Your task to perform on an android device: change the clock style Image 0: 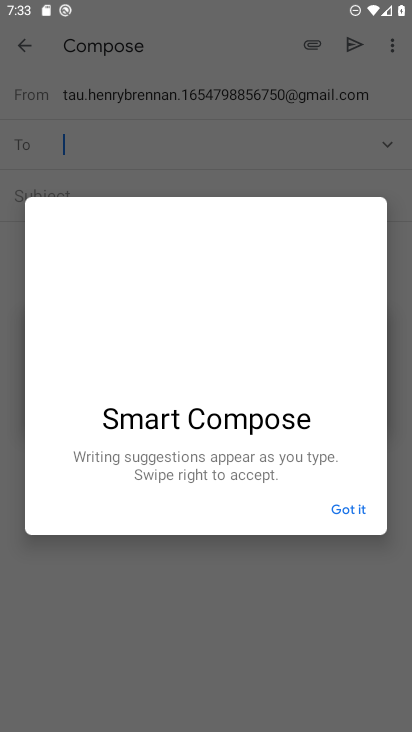
Step 0: press home button
Your task to perform on an android device: change the clock style Image 1: 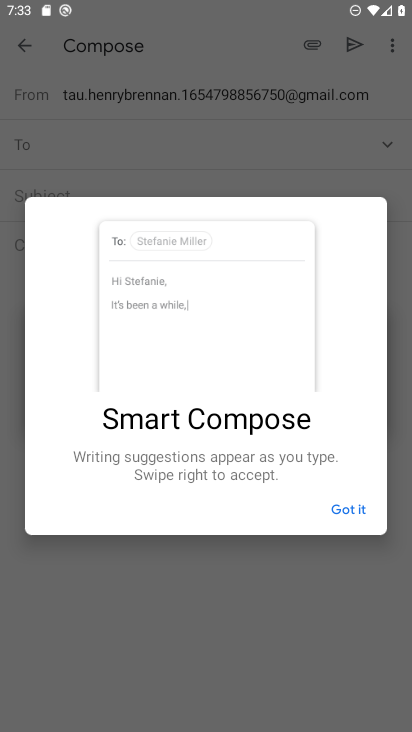
Step 1: drag from (369, 654) to (208, 25)
Your task to perform on an android device: change the clock style Image 2: 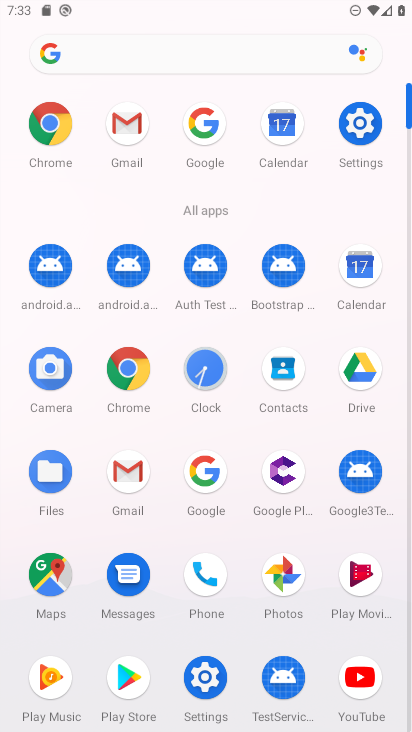
Step 2: click (199, 383)
Your task to perform on an android device: change the clock style Image 3: 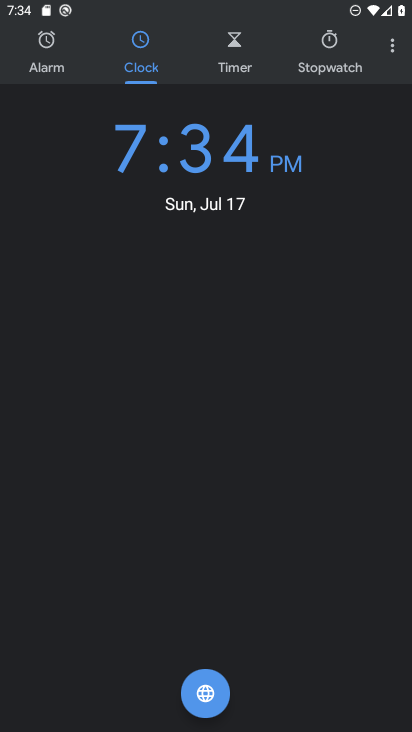
Step 3: click (389, 48)
Your task to perform on an android device: change the clock style Image 4: 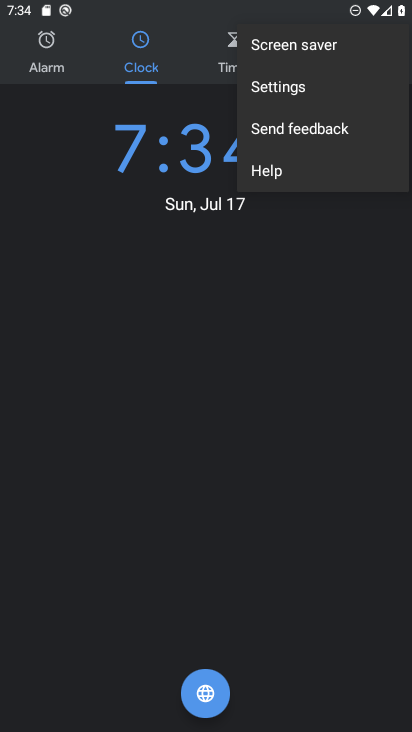
Step 4: click (287, 90)
Your task to perform on an android device: change the clock style Image 5: 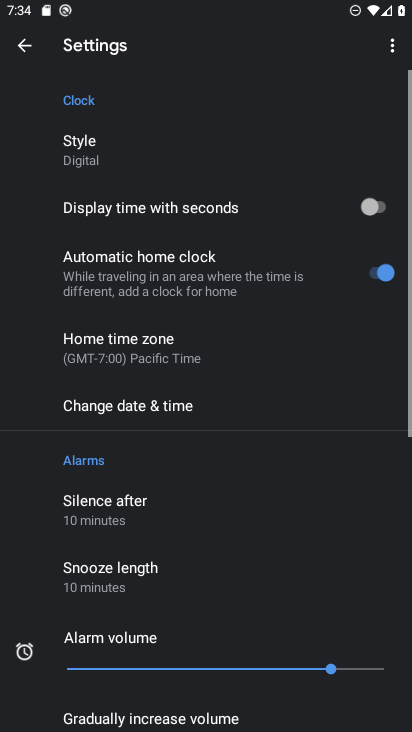
Step 5: click (74, 135)
Your task to perform on an android device: change the clock style Image 6: 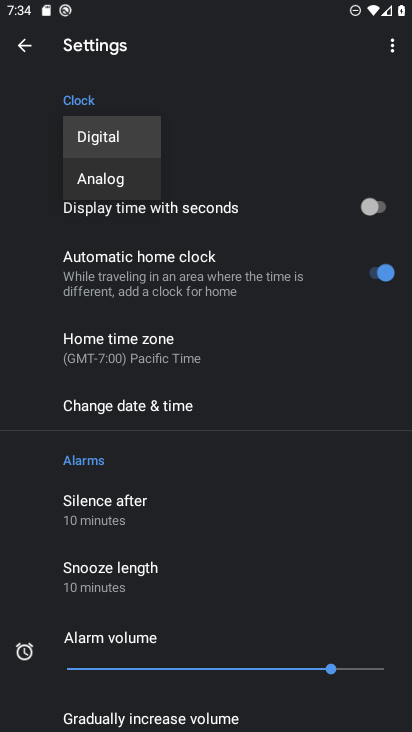
Step 6: click (116, 182)
Your task to perform on an android device: change the clock style Image 7: 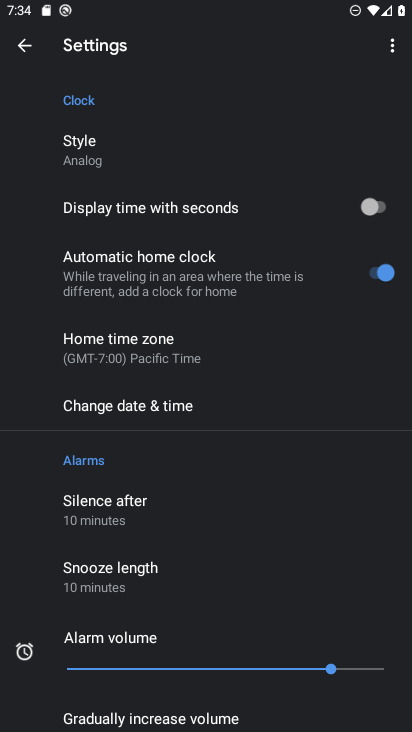
Step 7: task complete